Your task to perform on an android device: check battery use Image 0: 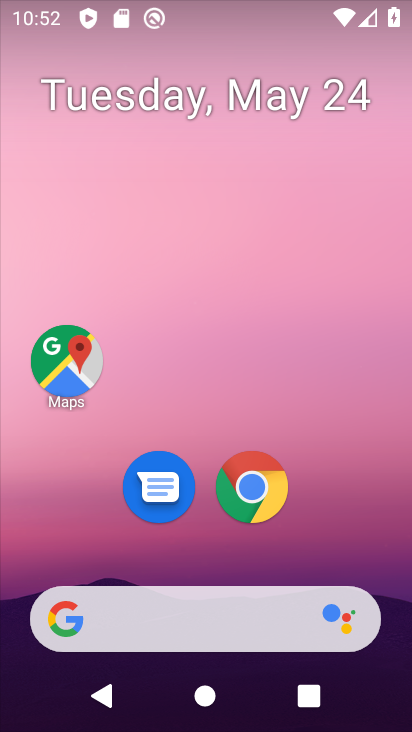
Step 0: drag from (187, 543) to (220, 11)
Your task to perform on an android device: check battery use Image 1: 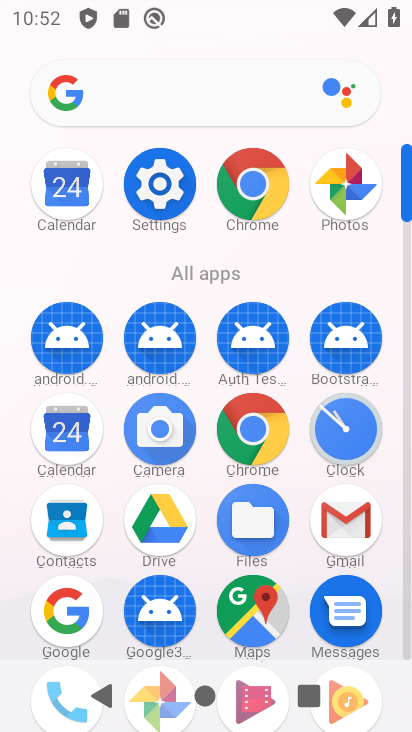
Step 1: click (158, 203)
Your task to perform on an android device: check battery use Image 2: 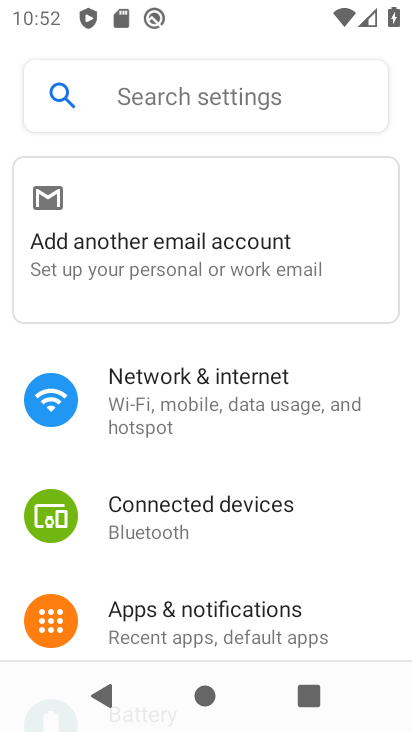
Step 2: drag from (181, 632) to (281, 139)
Your task to perform on an android device: check battery use Image 3: 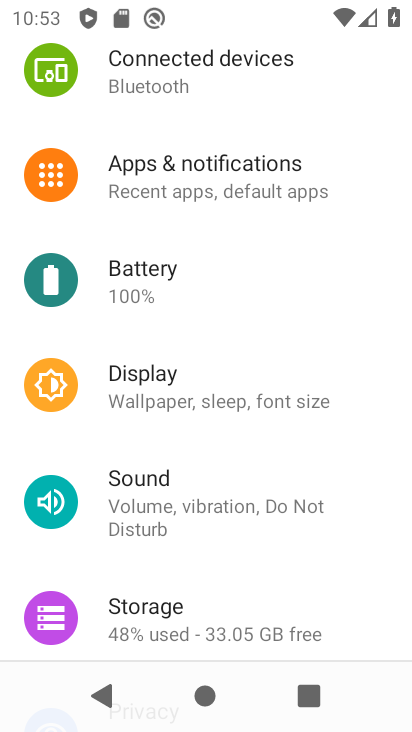
Step 3: click (163, 278)
Your task to perform on an android device: check battery use Image 4: 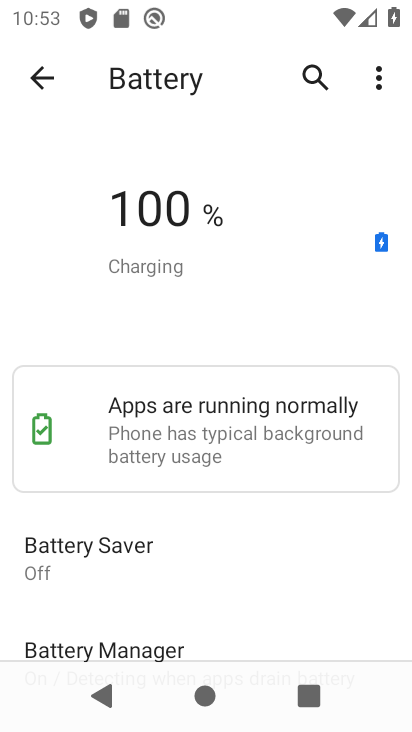
Step 4: click (373, 74)
Your task to perform on an android device: check battery use Image 5: 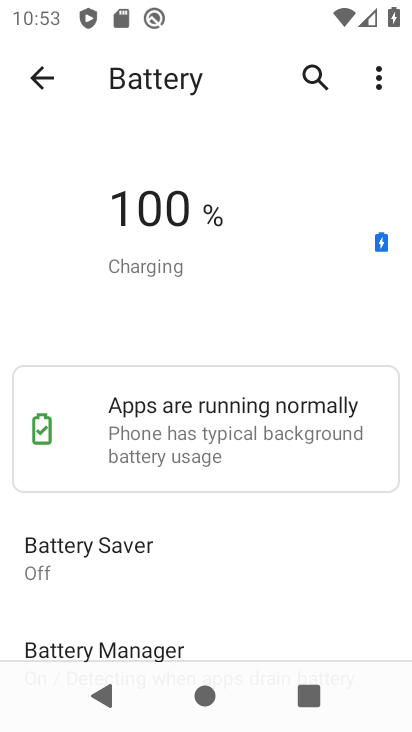
Step 5: click (378, 77)
Your task to perform on an android device: check battery use Image 6: 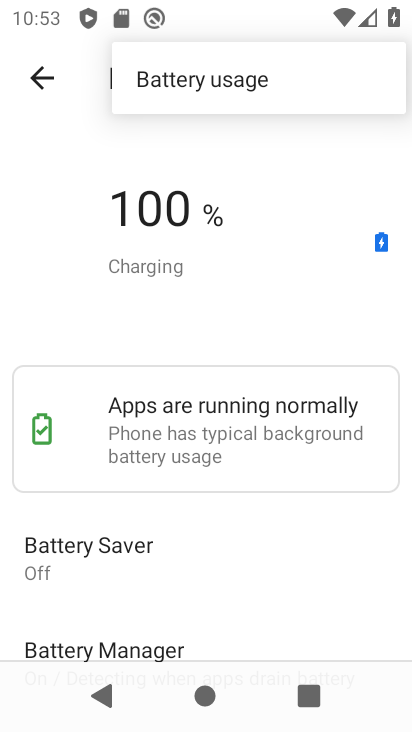
Step 6: click (231, 78)
Your task to perform on an android device: check battery use Image 7: 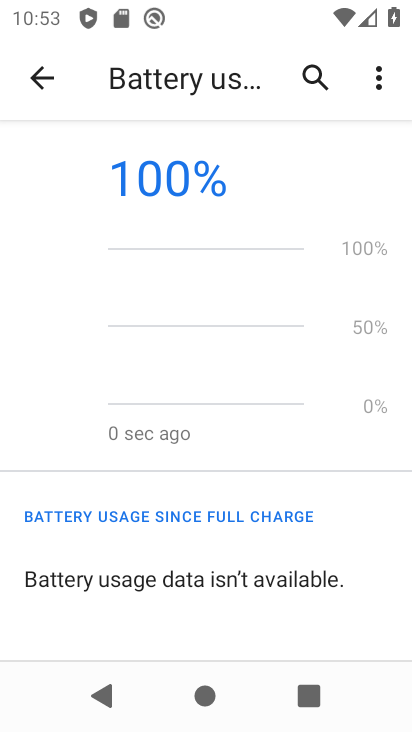
Step 7: task complete